Your task to perform on an android device: turn on wifi Image 0: 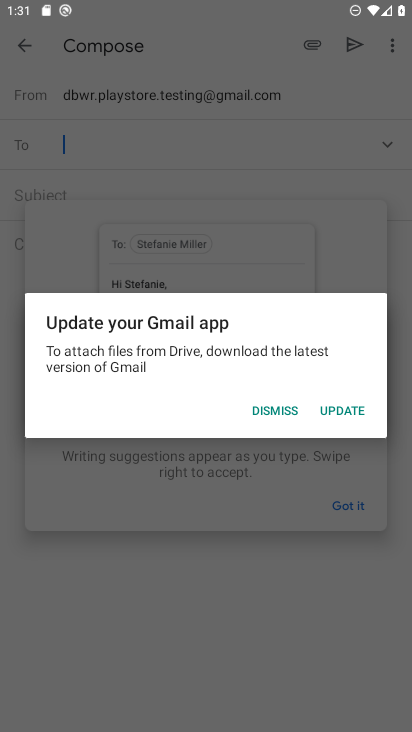
Step 0: press home button
Your task to perform on an android device: turn on wifi Image 1: 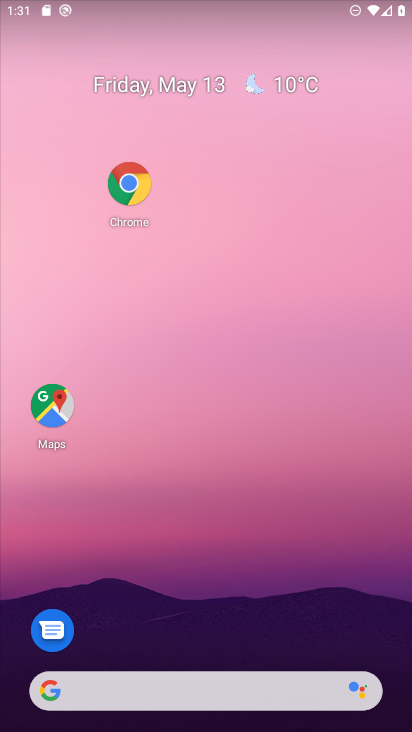
Step 1: drag from (199, 679) to (197, 166)
Your task to perform on an android device: turn on wifi Image 2: 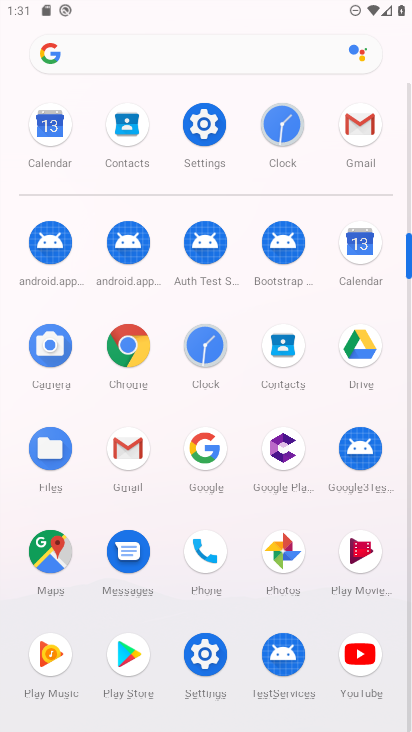
Step 2: click (189, 128)
Your task to perform on an android device: turn on wifi Image 3: 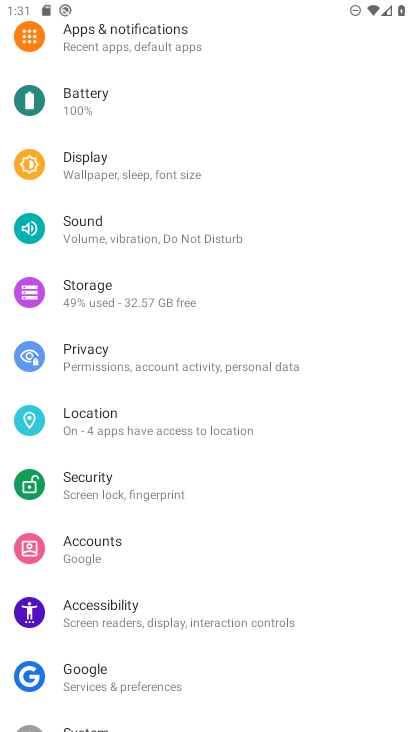
Step 3: drag from (126, 104) to (132, 505)
Your task to perform on an android device: turn on wifi Image 4: 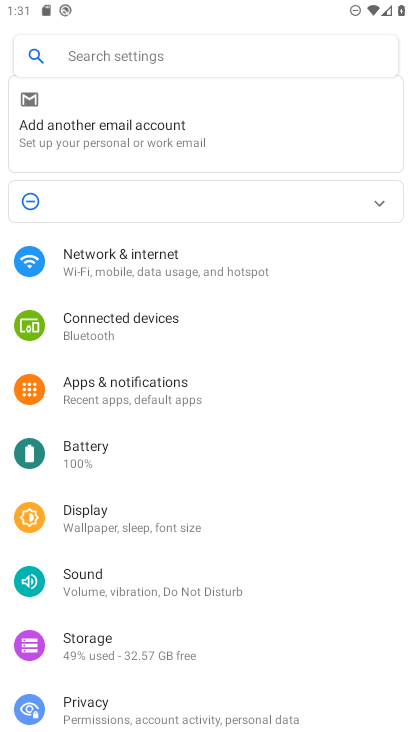
Step 4: click (156, 268)
Your task to perform on an android device: turn on wifi Image 5: 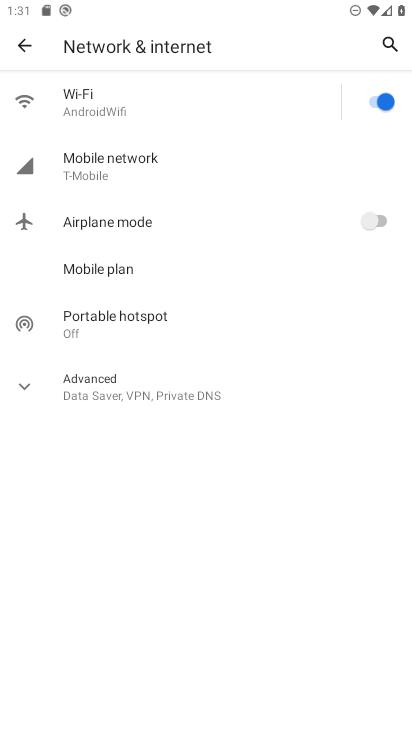
Step 5: task complete